Your task to perform on an android device: delete a single message in the gmail app Image 0: 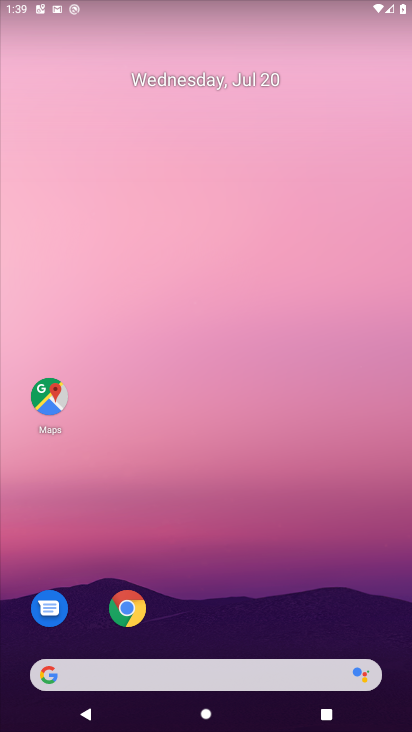
Step 0: drag from (200, 654) to (176, 52)
Your task to perform on an android device: delete a single message in the gmail app Image 1: 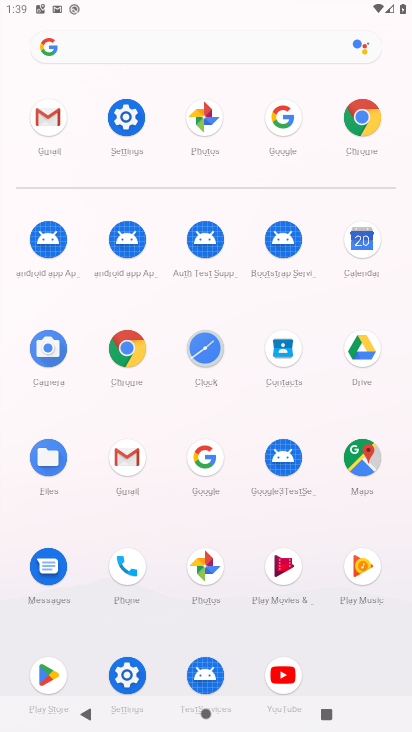
Step 1: click (127, 467)
Your task to perform on an android device: delete a single message in the gmail app Image 2: 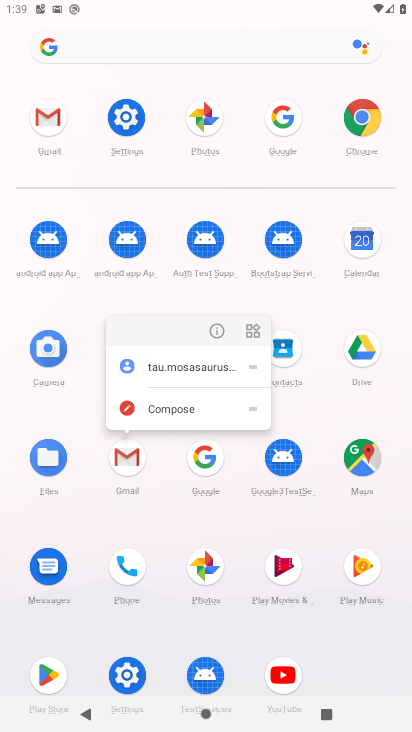
Step 2: click (127, 467)
Your task to perform on an android device: delete a single message in the gmail app Image 3: 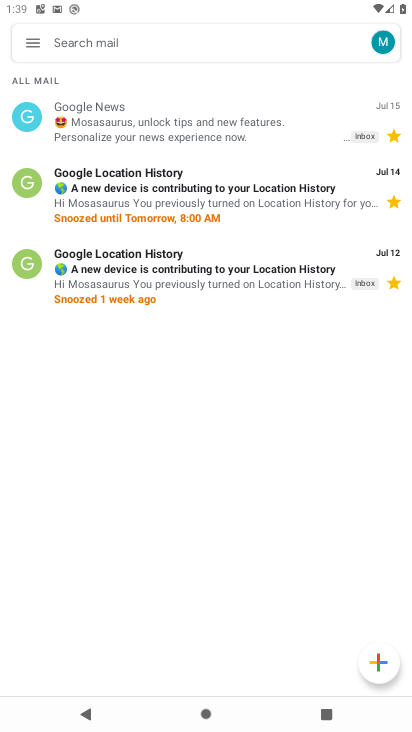
Step 3: click (183, 106)
Your task to perform on an android device: delete a single message in the gmail app Image 4: 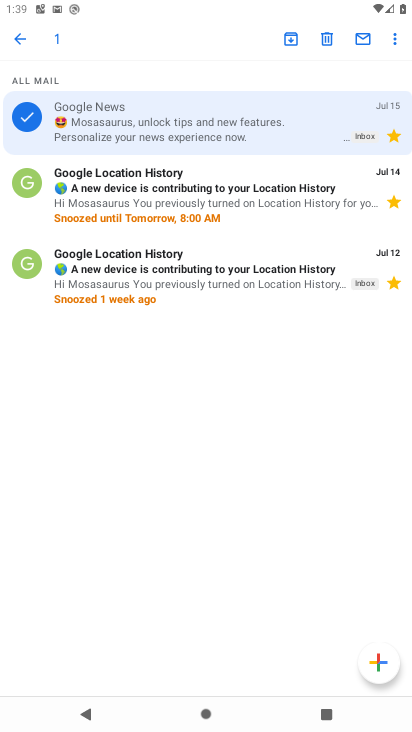
Step 4: click (324, 33)
Your task to perform on an android device: delete a single message in the gmail app Image 5: 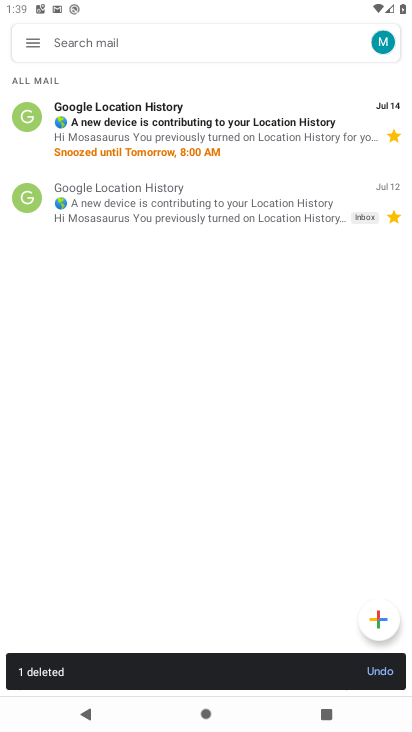
Step 5: task complete